Your task to perform on an android device: Open privacy settings Image 0: 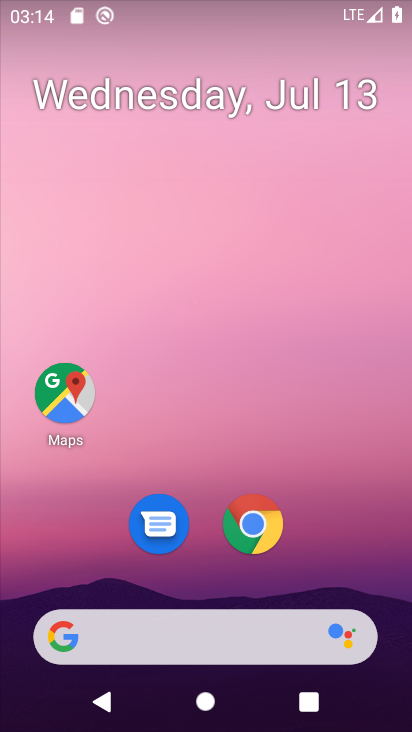
Step 0: drag from (347, 538) to (291, 19)
Your task to perform on an android device: Open privacy settings Image 1: 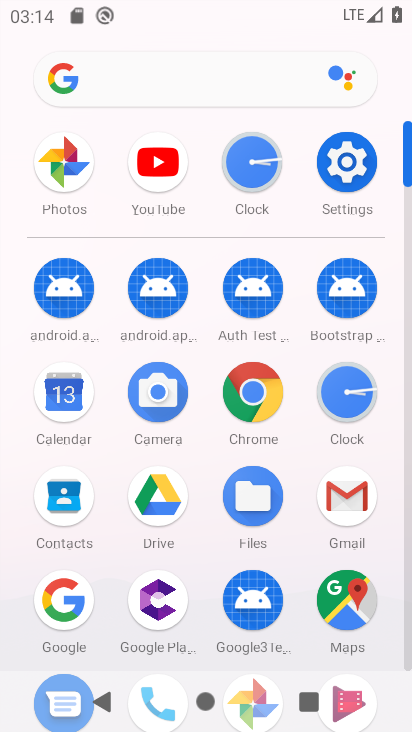
Step 1: click (347, 167)
Your task to perform on an android device: Open privacy settings Image 2: 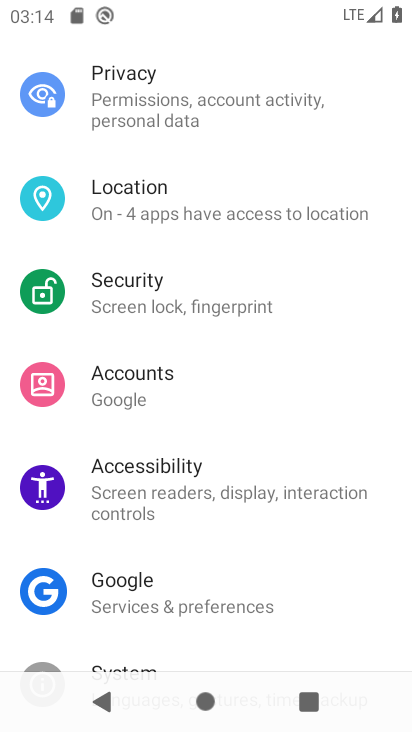
Step 2: click (189, 96)
Your task to perform on an android device: Open privacy settings Image 3: 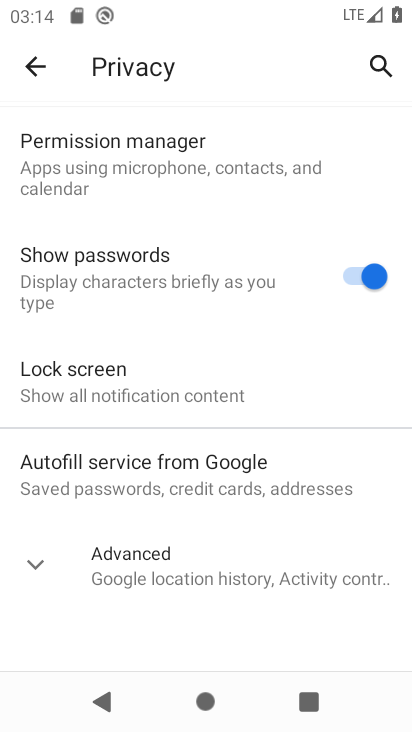
Step 3: task complete